Your task to perform on an android device: Open ESPN.com Image 0: 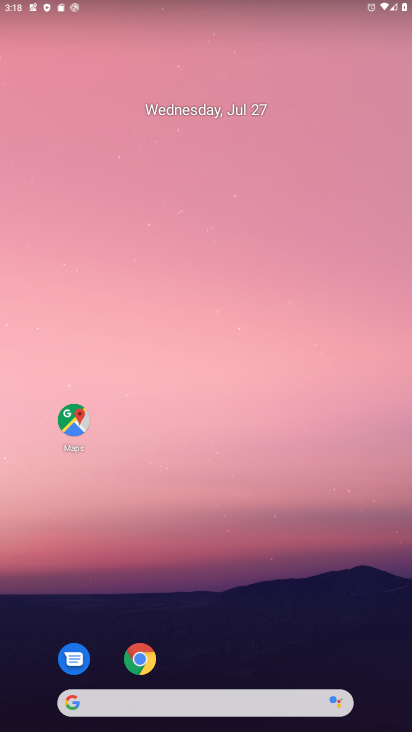
Step 0: click (146, 659)
Your task to perform on an android device: Open ESPN.com Image 1: 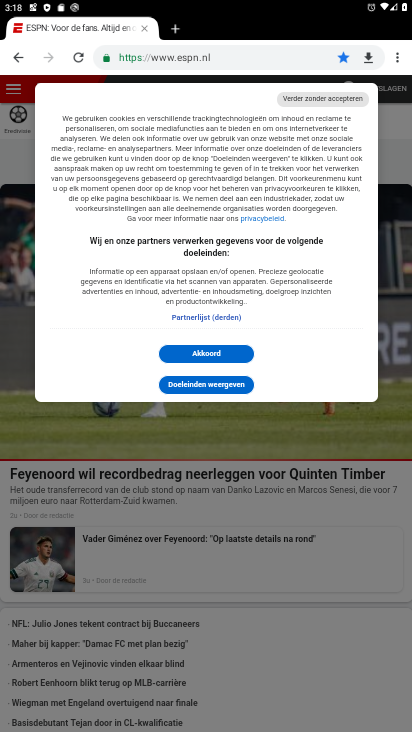
Step 1: click (175, 23)
Your task to perform on an android device: Open ESPN.com Image 2: 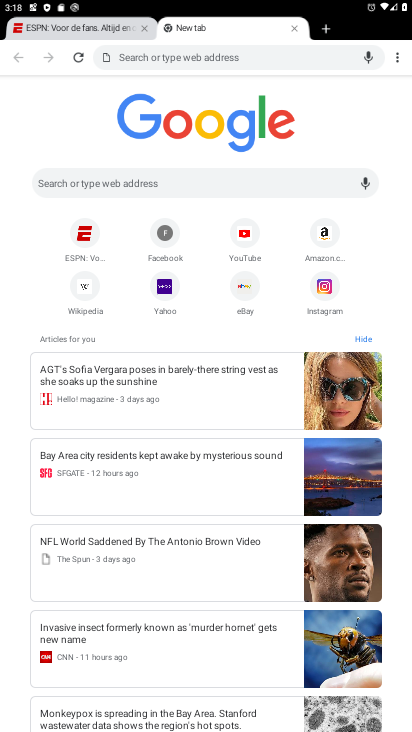
Step 2: click (79, 248)
Your task to perform on an android device: Open ESPN.com Image 3: 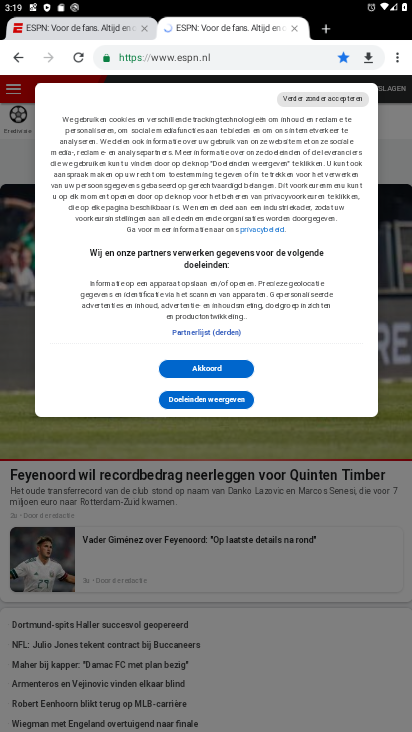
Step 3: task complete